Your task to perform on an android device: Search for Italian restaurants on Maps Image 0: 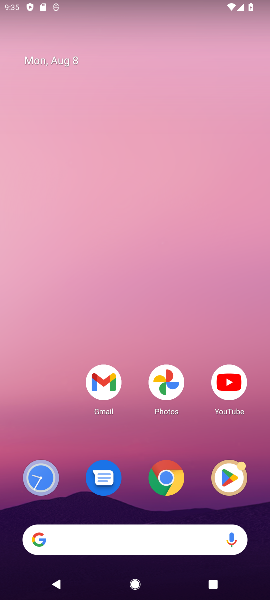
Step 0: drag from (141, 512) to (103, 69)
Your task to perform on an android device: Search for Italian restaurants on Maps Image 1: 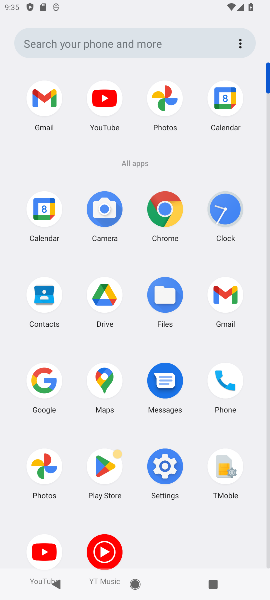
Step 1: click (98, 380)
Your task to perform on an android device: Search for Italian restaurants on Maps Image 2: 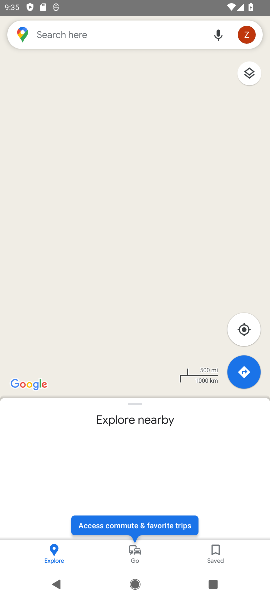
Step 2: click (75, 39)
Your task to perform on an android device: Search for Italian restaurants on Maps Image 3: 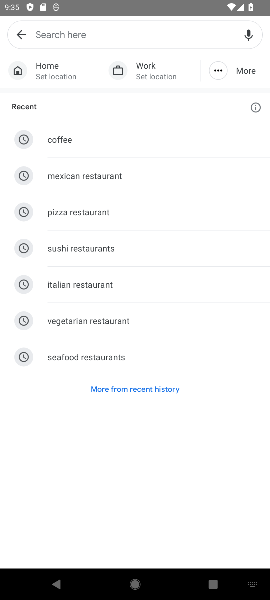
Step 3: click (80, 286)
Your task to perform on an android device: Search for Italian restaurants on Maps Image 4: 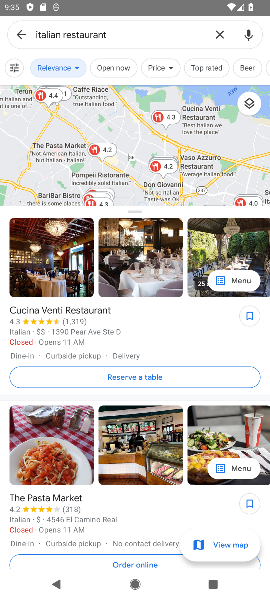
Step 4: task complete